Your task to perform on an android device: turn pop-ups off in chrome Image 0: 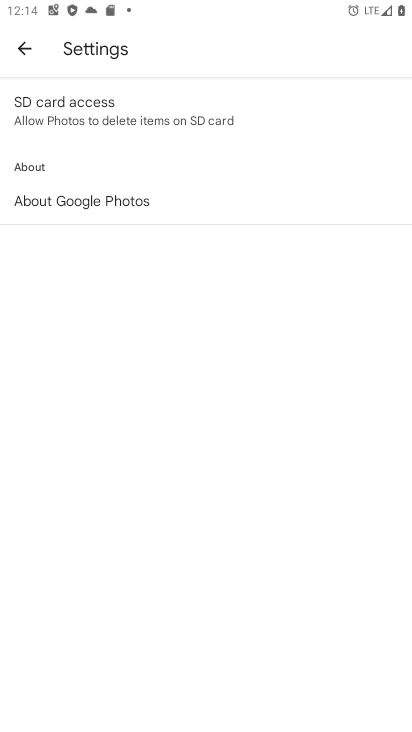
Step 0: press home button
Your task to perform on an android device: turn pop-ups off in chrome Image 1: 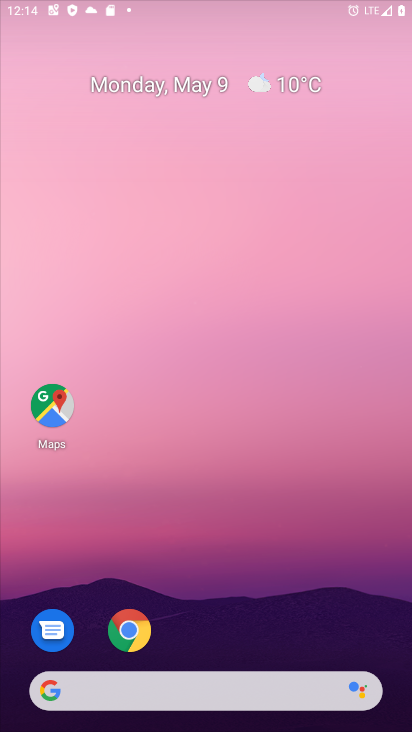
Step 1: drag from (329, 529) to (303, 3)
Your task to perform on an android device: turn pop-ups off in chrome Image 2: 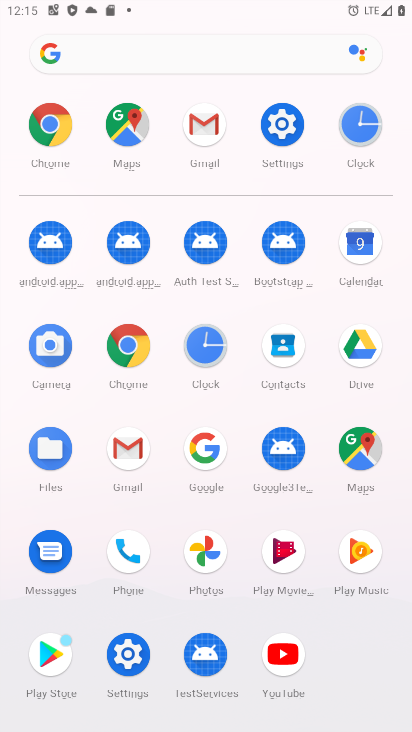
Step 2: click (111, 360)
Your task to perform on an android device: turn pop-ups off in chrome Image 3: 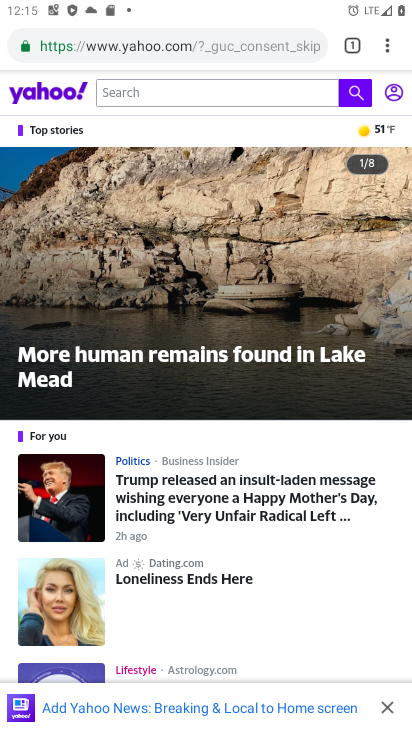
Step 3: press back button
Your task to perform on an android device: turn pop-ups off in chrome Image 4: 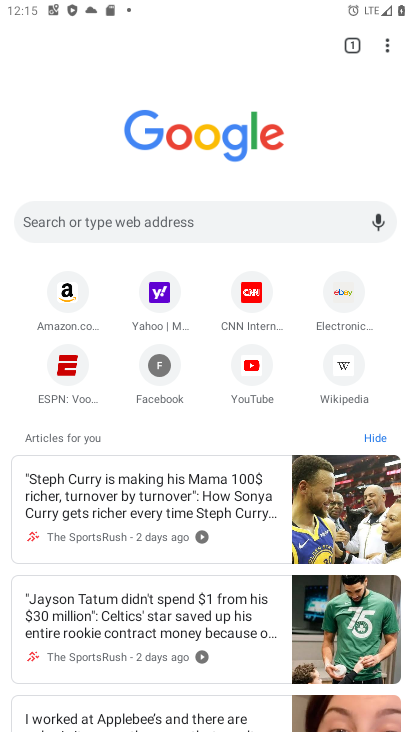
Step 4: click (389, 44)
Your task to perform on an android device: turn pop-ups off in chrome Image 5: 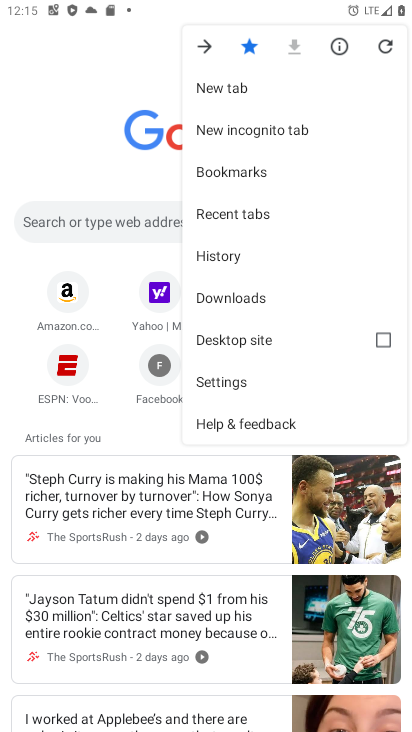
Step 5: click (234, 385)
Your task to perform on an android device: turn pop-ups off in chrome Image 6: 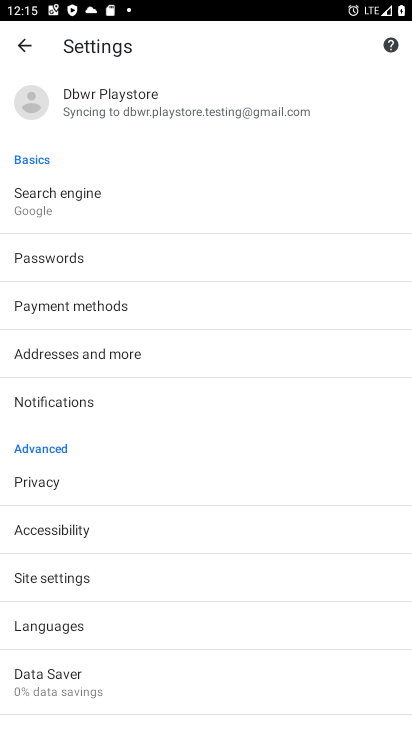
Step 6: click (95, 583)
Your task to perform on an android device: turn pop-ups off in chrome Image 7: 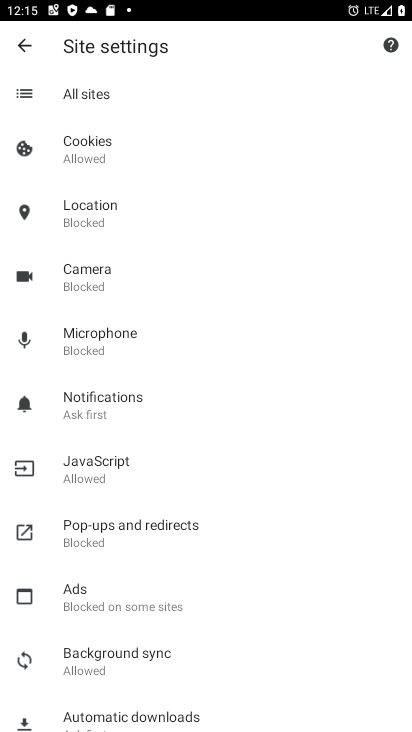
Step 7: click (124, 533)
Your task to perform on an android device: turn pop-ups off in chrome Image 8: 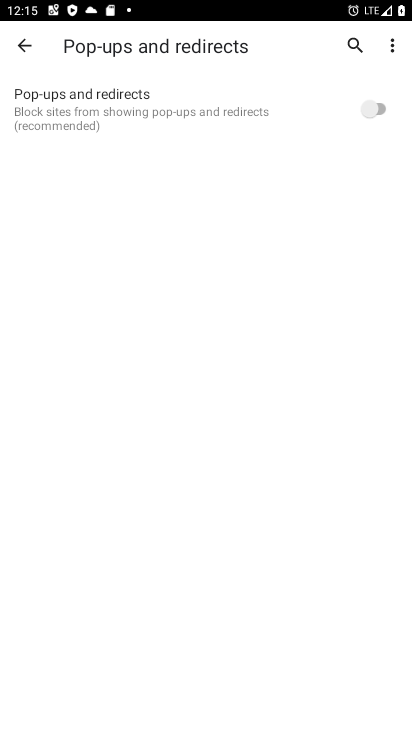
Step 8: click (305, 104)
Your task to perform on an android device: turn pop-ups off in chrome Image 9: 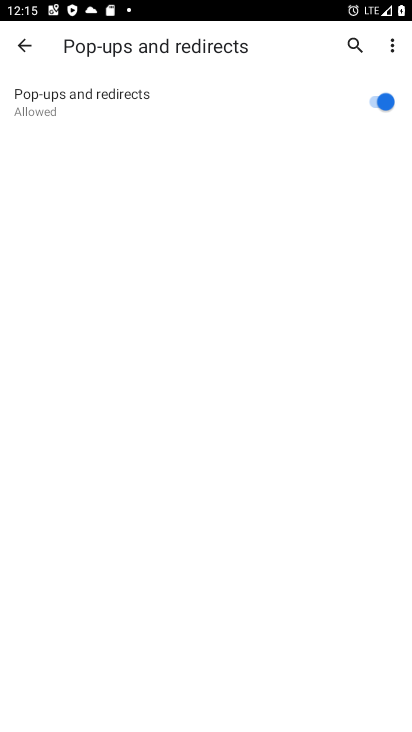
Step 9: click (305, 104)
Your task to perform on an android device: turn pop-ups off in chrome Image 10: 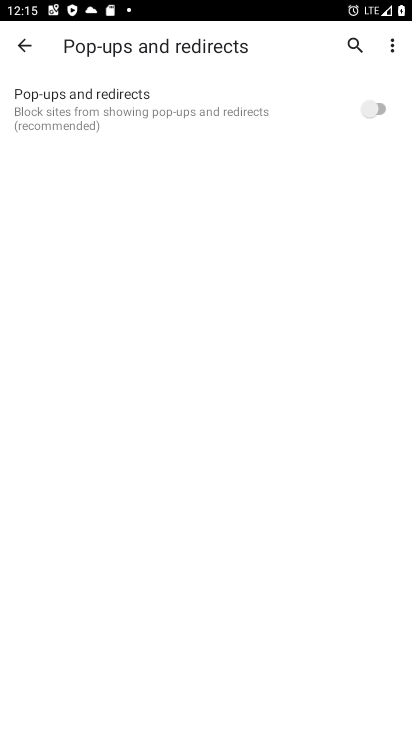
Step 10: task complete